Your task to perform on an android device: Open my contact list Image 0: 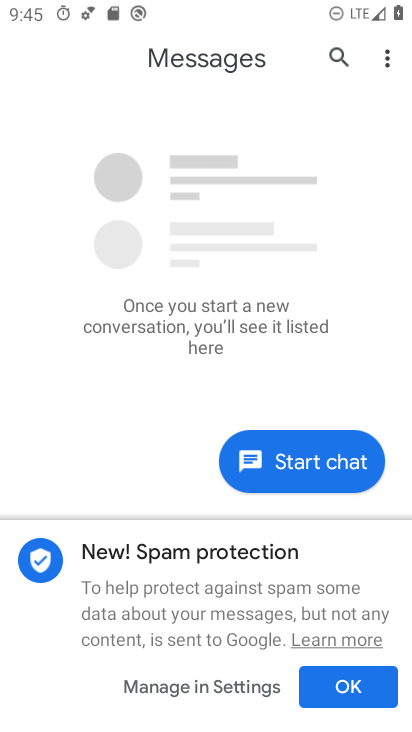
Step 0: press home button
Your task to perform on an android device: Open my contact list Image 1: 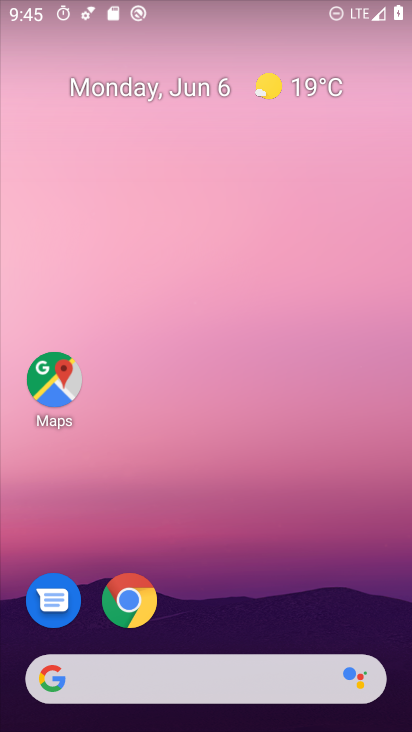
Step 1: drag from (240, 517) to (208, 58)
Your task to perform on an android device: Open my contact list Image 2: 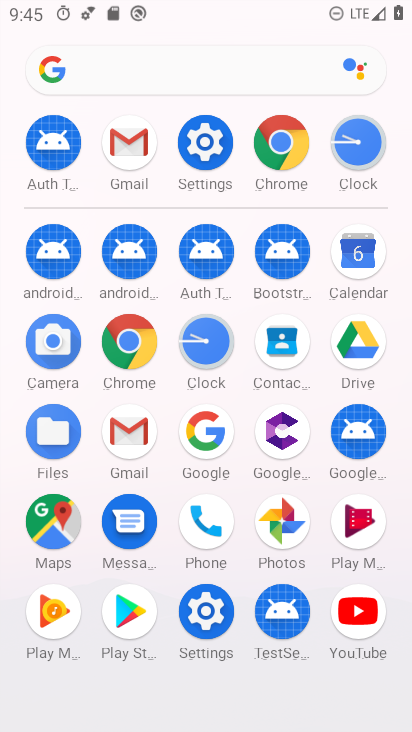
Step 2: click (279, 338)
Your task to perform on an android device: Open my contact list Image 3: 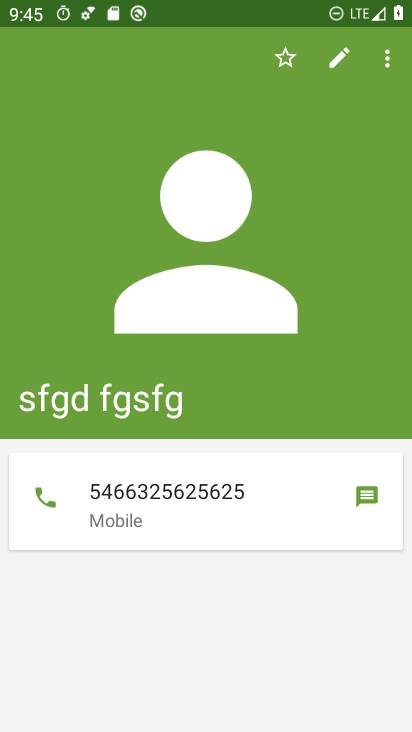
Step 3: task complete